Your task to perform on an android device: turn off picture-in-picture Image 0: 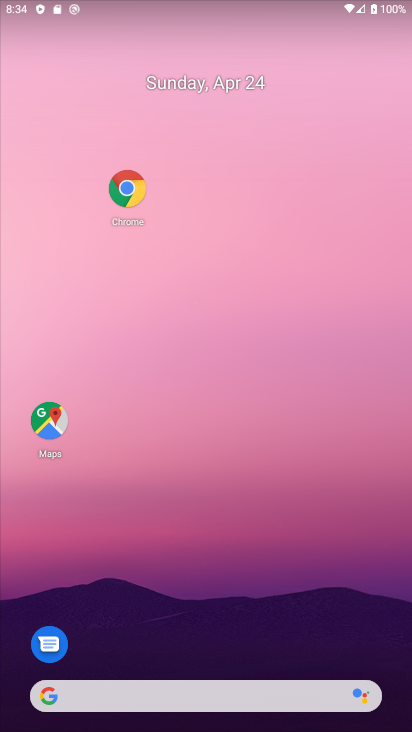
Step 0: drag from (181, 509) to (192, 158)
Your task to perform on an android device: turn off picture-in-picture Image 1: 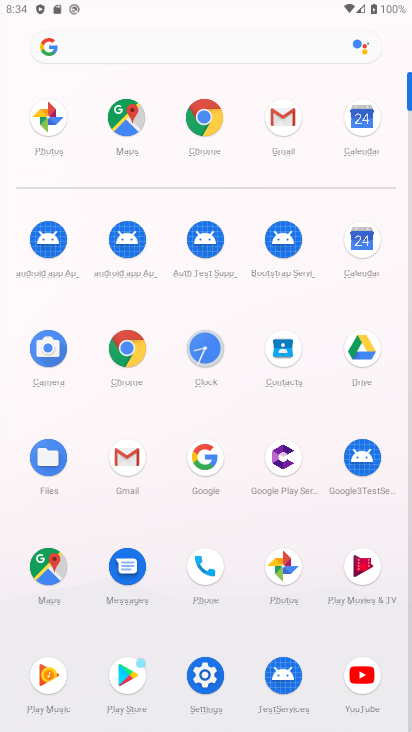
Step 1: click (213, 676)
Your task to perform on an android device: turn off picture-in-picture Image 2: 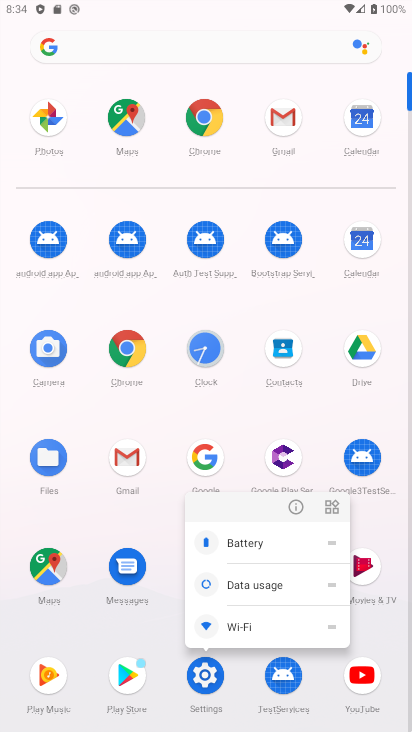
Step 2: click (308, 510)
Your task to perform on an android device: turn off picture-in-picture Image 3: 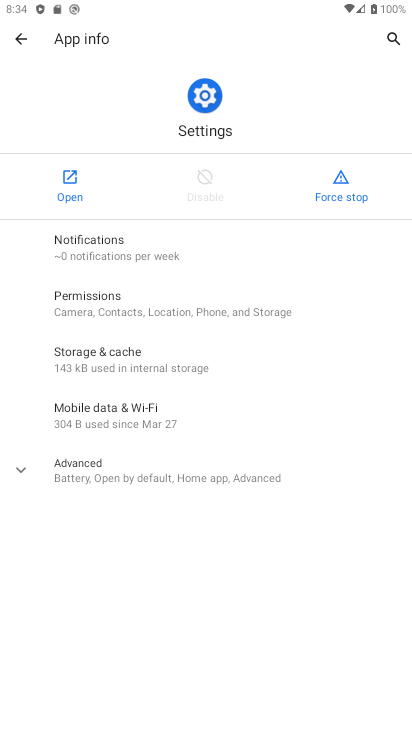
Step 3: click (73, 164)
Your task to perform on an android device: turn off picture-in-picture Image 4: 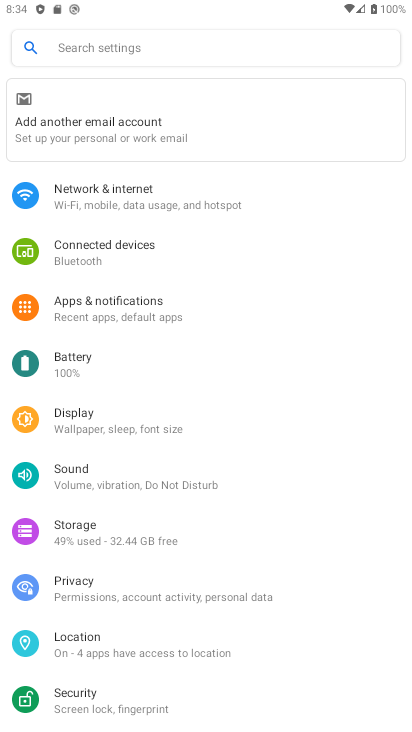
Step 4: click (143, 307)
Your task to perform on an android device: turn off picture-in-picture Image 5: 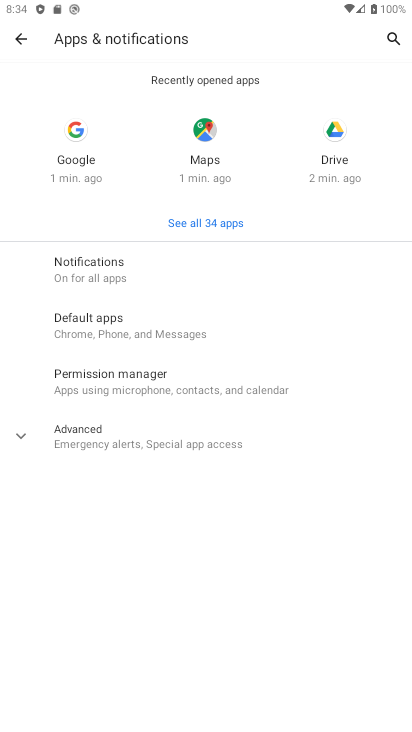
Step 5: click (137, 262)
Your task to perform on an android device: turn off picture-in-picture Image 6: 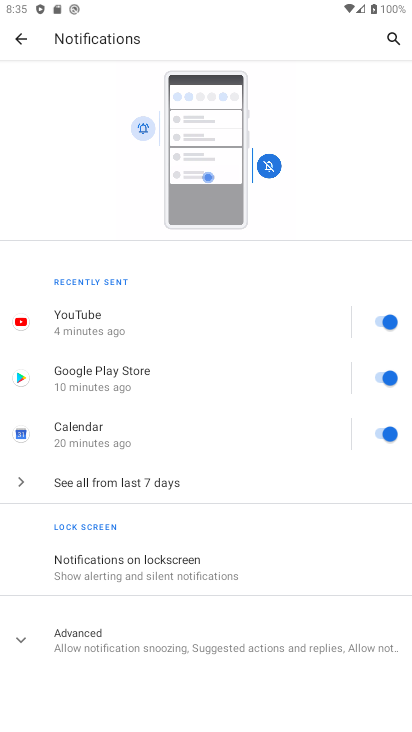
Step 6: drag from (170, 538) to (194, 227)
Your task to perform on an android device: turn off picture-in-picture Image 7: 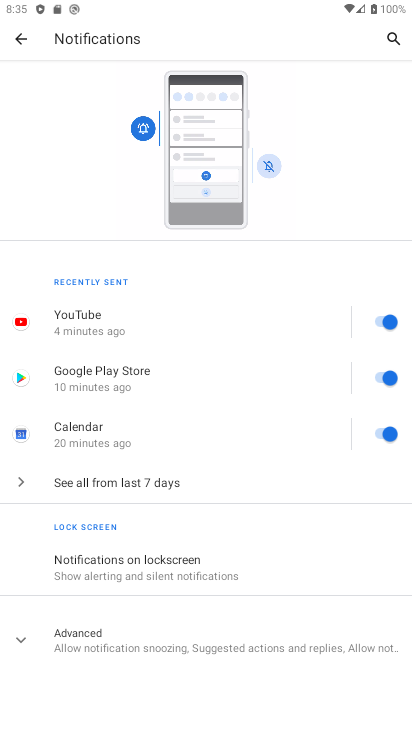
Step 7: click (139, 631)
Your task to perform on an android device: turn off picture-in-picture Image 8: 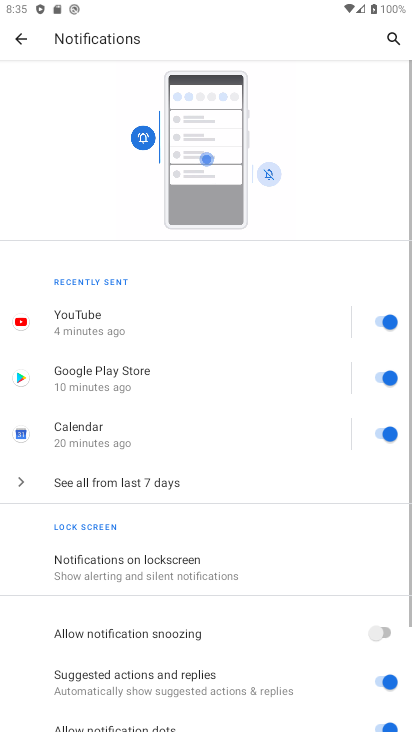
Step 8: drag from (221, 586) to (246, 294)
Your task to perform on an android device: turn off picture-in-picture Image 9: 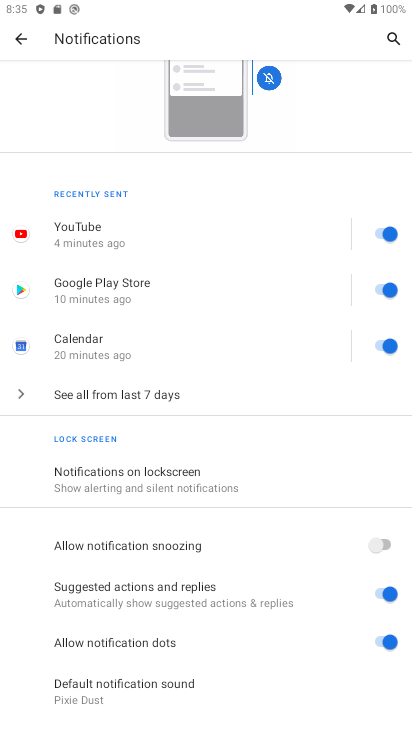
Step 9: drag from (207, 643) to (251, 297)
Your task to perform on an android device: turn off picture-in-picture Image 10: 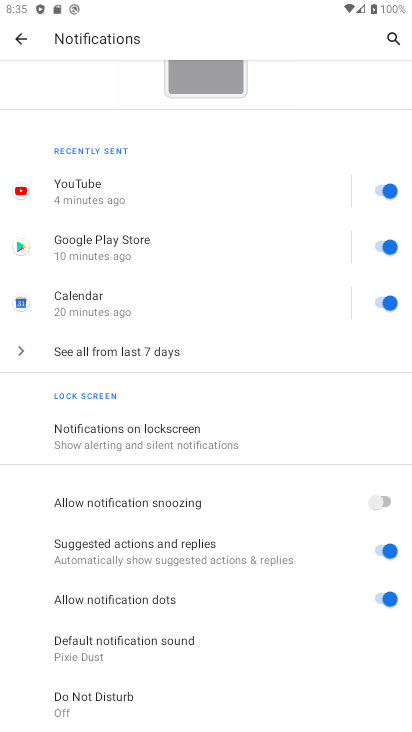
Step 10: click (22, 37)
Your task to perform on an android device: turn off picture-in-picture Image 11: 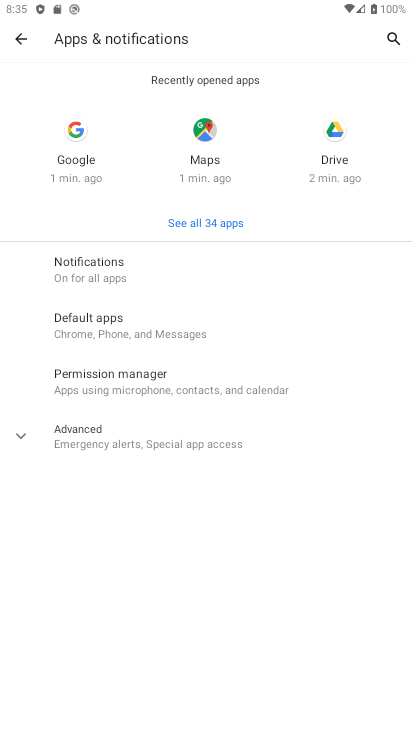
Step 11: click (111, 438)
Your task to perform on an android device: turn off picture-in-picture Image 12: 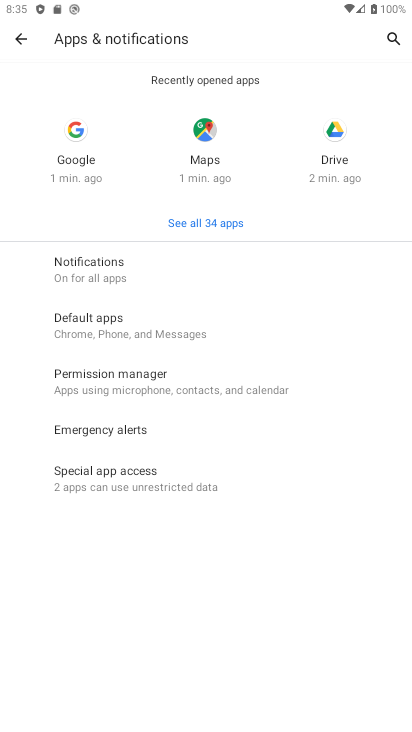
Step 12: click (177, 466)
Your task to perform on an android device: turn off picture-in-picture Image 13: 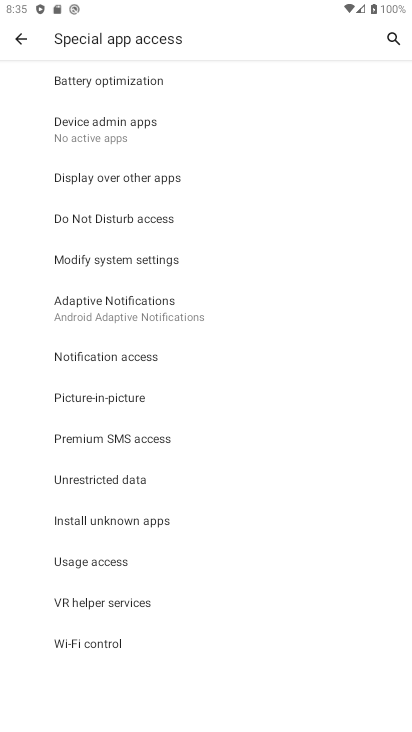
Step 13: click (136, 399)
Your task to perform on an android device: turn off picture-in-picture Image 14: 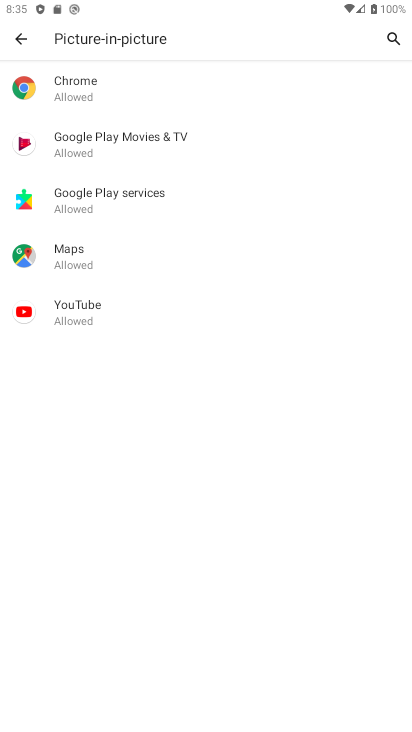
Step 14: task complete